Your task to perform on an android device: Open Google Chrome and click the shortcut for Amazon.com Image 0: 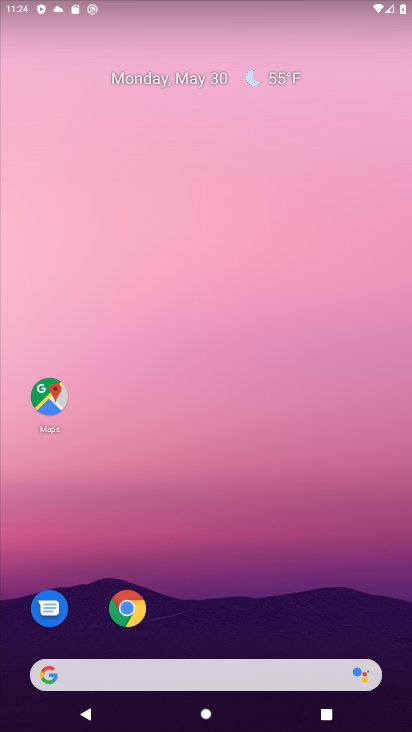
Step 0: click (134, 616)
Your task to perform on an android device: Open Google Chrome and click the shortcut for Amazon.com Image 1: 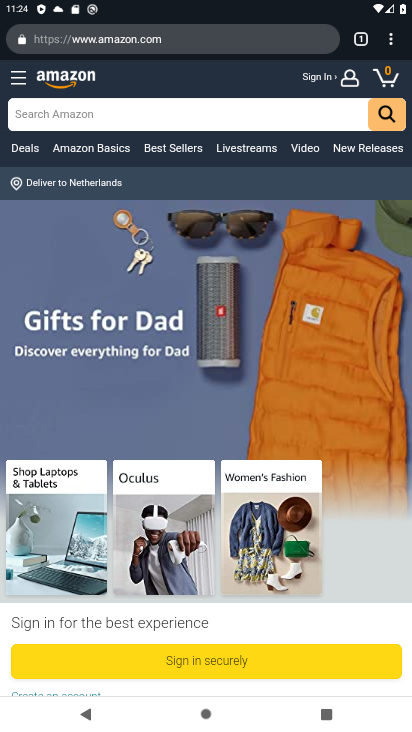
Step 1: drag from (109, 22) to (115, 208)
Your task to perform on an android device: Open Google Chrome and click the shortcut for Amazon.com Image 2: 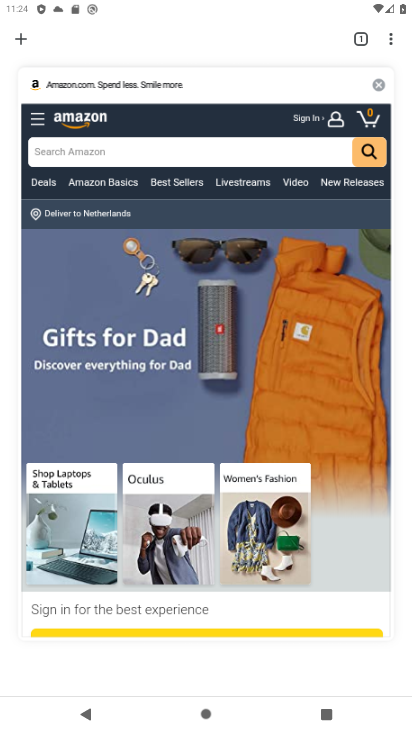
Step 2: click (14, 38)
Your task to perform on an android device: Open Google Chrome and click the shortcut for Amazon.com Image 3: 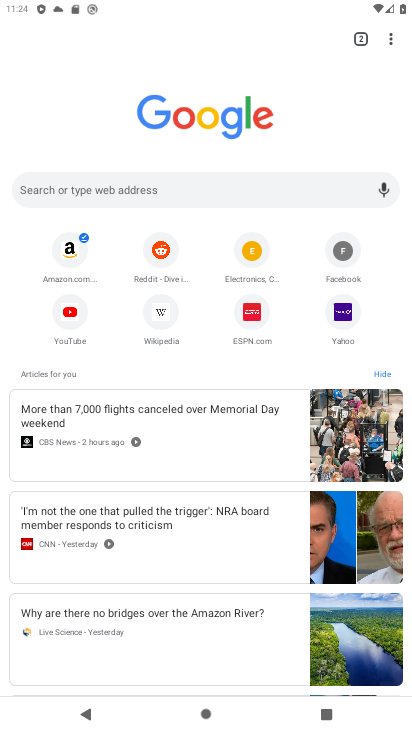
Step 3: click (71, 255)
Your task to perform on an android device: Open Google Chrome and click the shortcut for Amazon.com Image 4: 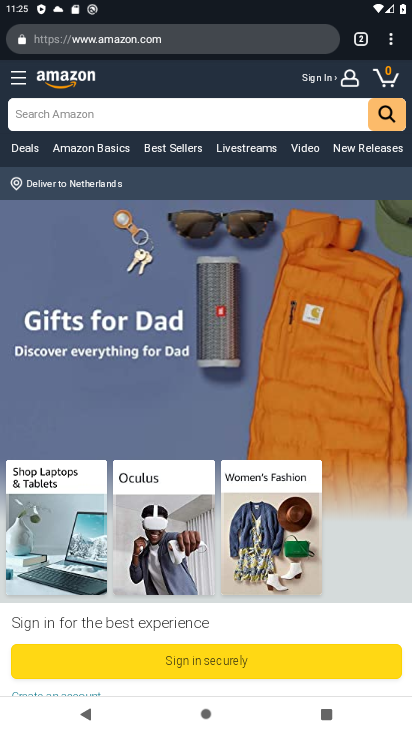
Step 4: task complete